Your task to perform on an android device: turn off translation in the chrome app Image 0: 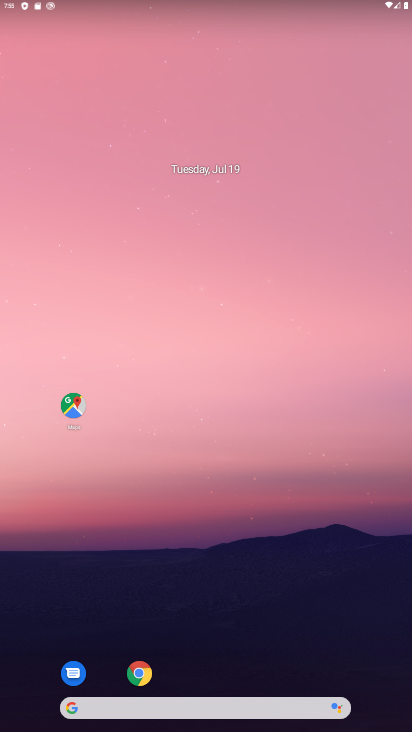
Step 0: click (138, 663)
Your task to perform on an android device: turn off translation in the chrome app Image 1: 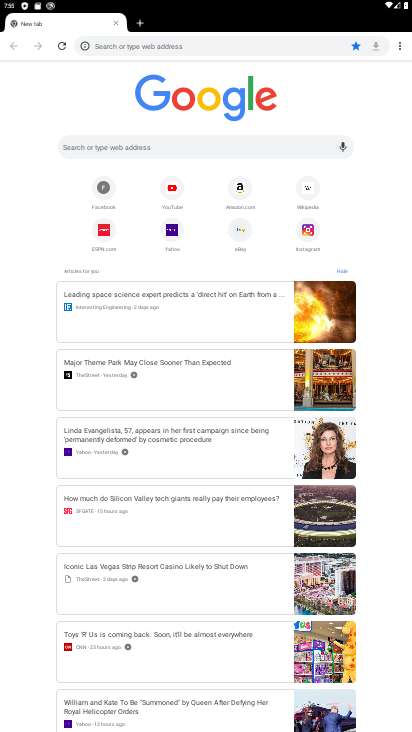
Step 1: click (400, 43)
Your task to perform on an android device: turn off translation in the chrome app Image 2: 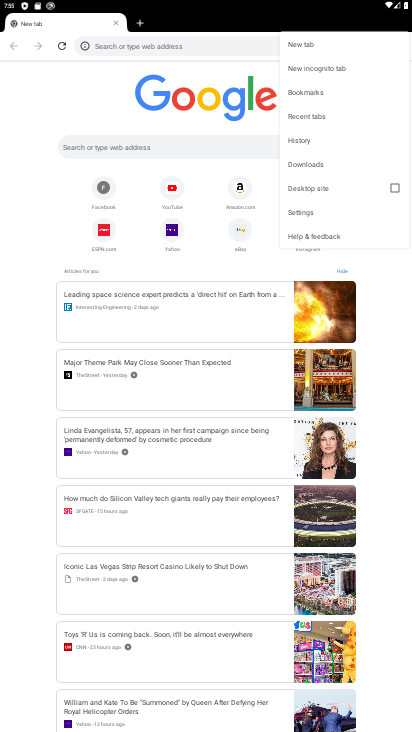
Step 2: click (321, 214)
Your task to perform on an android device: turn off translation in the chrome app Image 3: 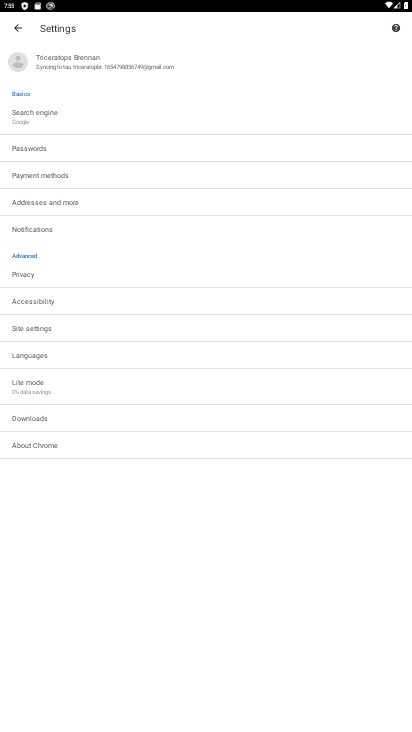
Step 3: click (39, 353)
Your task to perform on an android device: turn off translation in the chrome app Image 4: 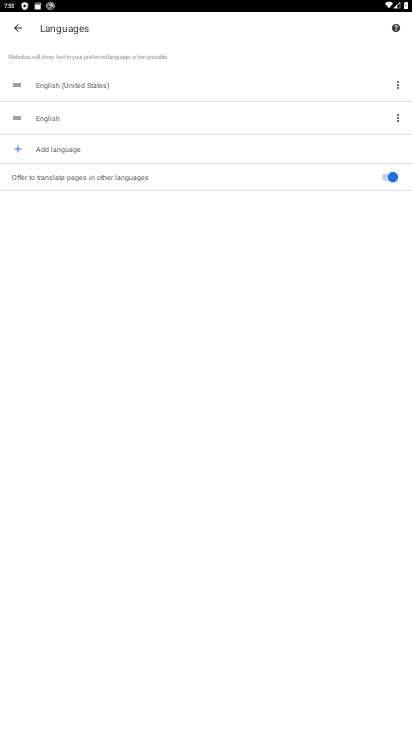
Step 4: click (388, 175)
Your task to perform on an android device: turn off translation in the chrome app Image 5: 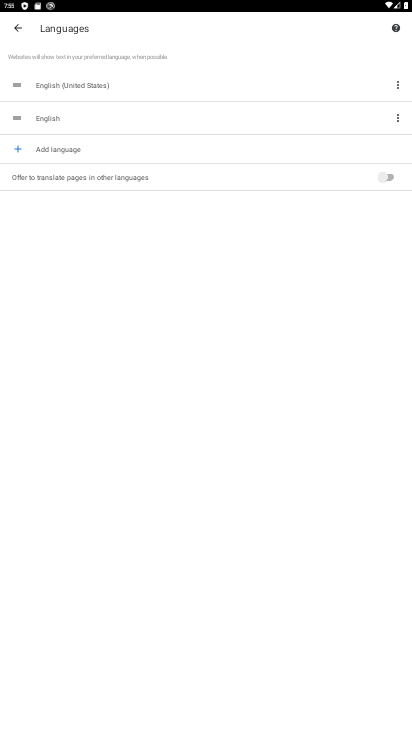
Step 5: task complete